Your task to perform on an android device: Go to accessibility settings Image 0: 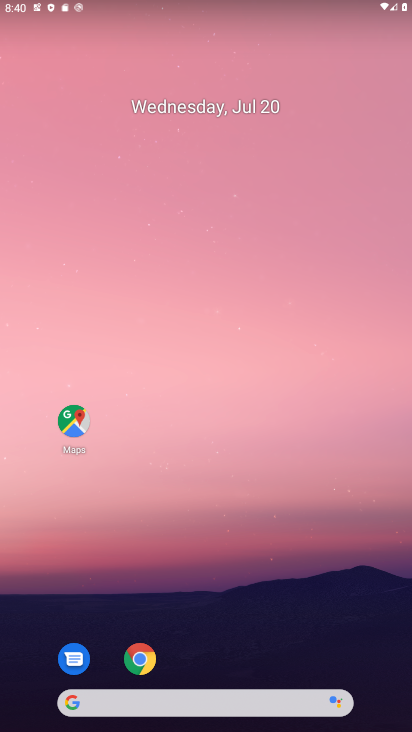
Step 0: drag from (247, 653) to (303, 54)
Your task to perform on an android device: Go to accessibility settings Image 1: 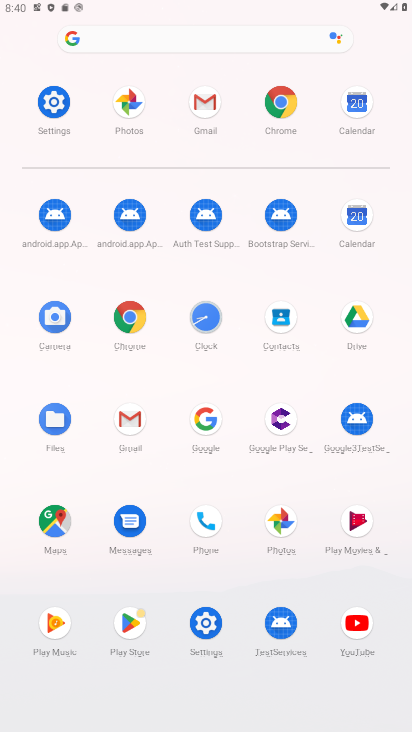
Step 1: click (195, 619)
Your task to perform on an android device: Go to accessibility settings Image 2: 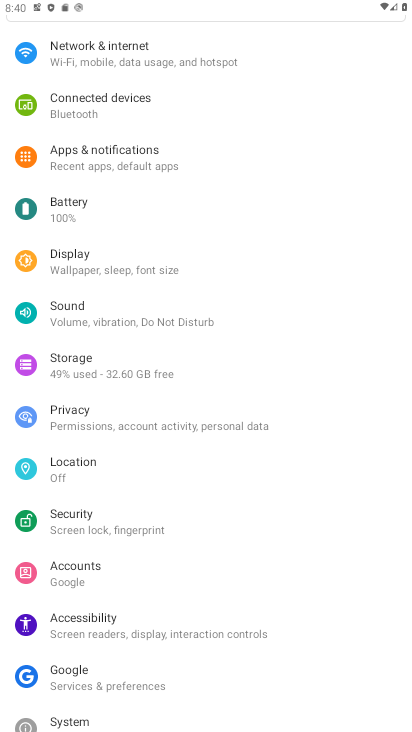
Step 2: click (88, 616)
Your task to perform on an android device: Go to accessibility settings Image 3: 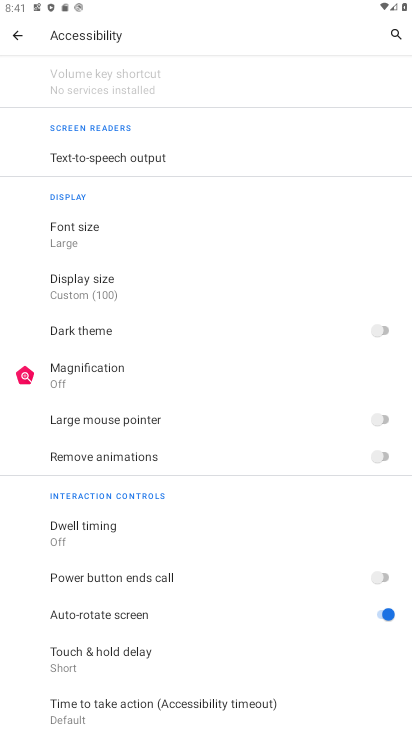
Step 3: task complete